Your task to perform on an android device: turn off picture-in-picture Image 0: 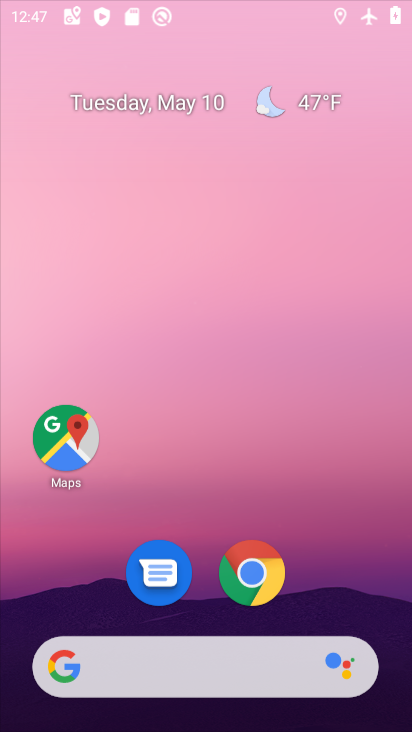
Step 0: click (310, 226)
Your task to perform on an android device: turn off picture-in-picture Image 1: 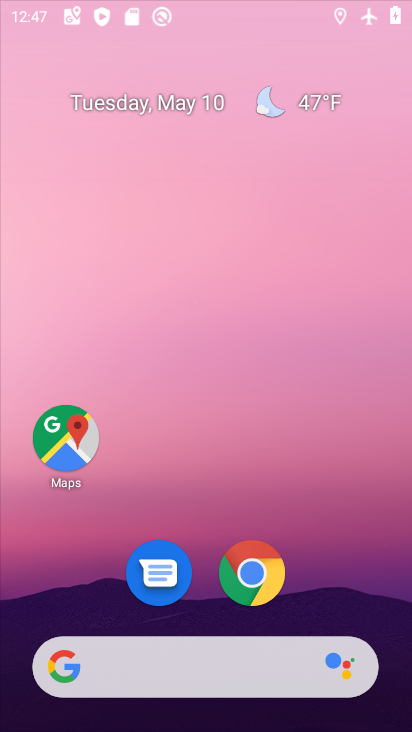
Step 1: drag from (213, 590) to (262, 265)
Your task to perform on an android device: turn off picture-in-picture Image 2: 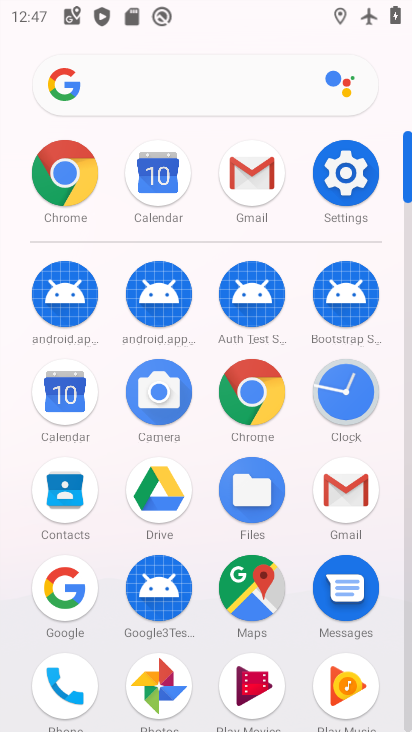
Step 2: click (365, 163)
Your task to perform on an android device: turn off picture-in-picture Image 3: 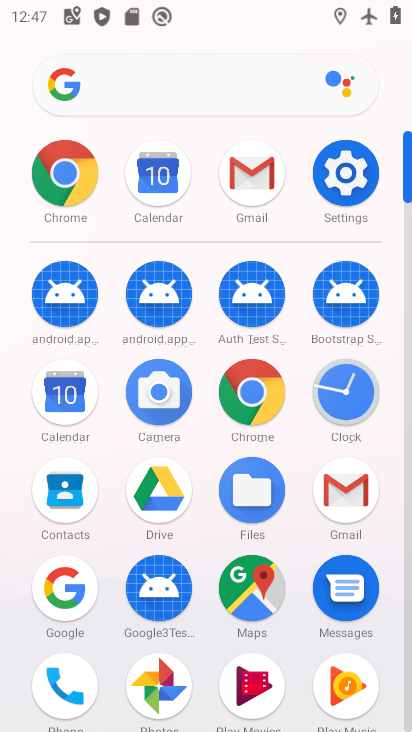
Step 3: click (365, 163)
Your task to perform on an android device: turn off picture-in-picture Image 4: 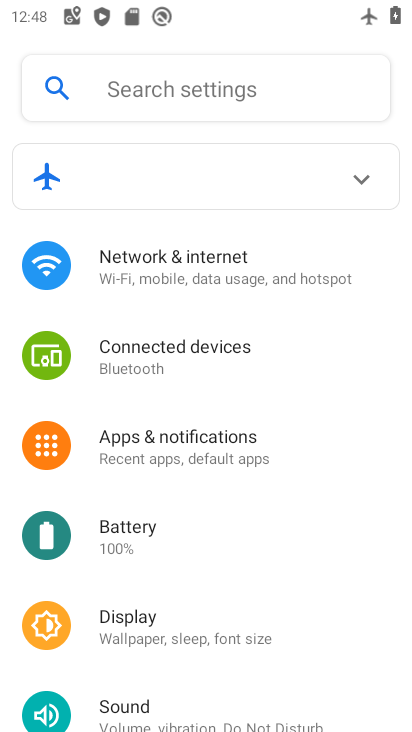
Step 4: drag from (199, 613) to (256, 250)
Your task to perform on an android device: turn off picture-in-picture Image 5: 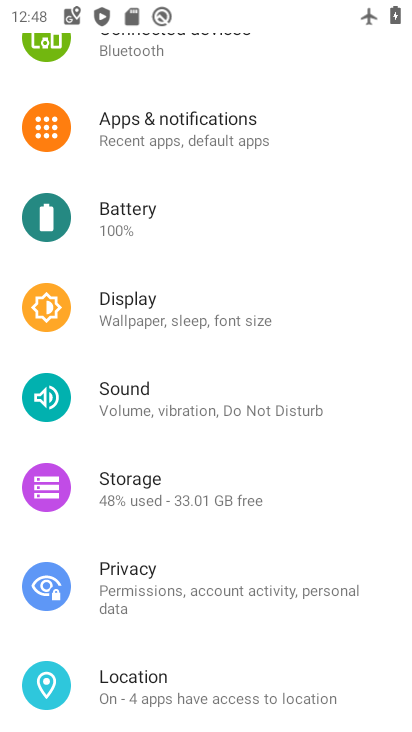
Step 5: drag from (193, 560) to (257, 261)
Your task to perform on an android device: turn off picture-in-picture Image 6: 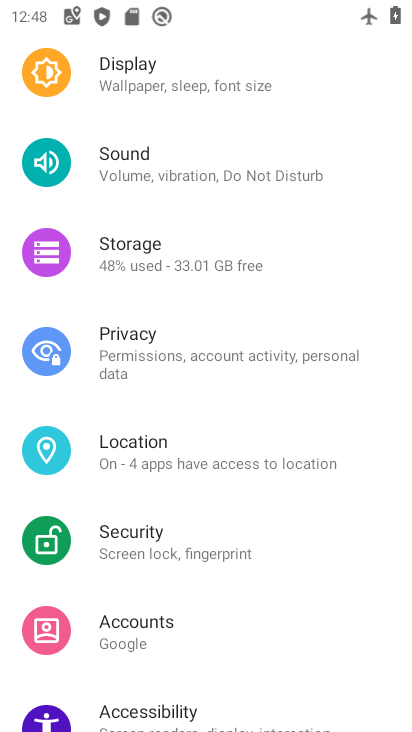
Step 6: drag from (270, 211) to (223, 627)
Your task to perform on an android device: turn off picture-in-picture Image 7: 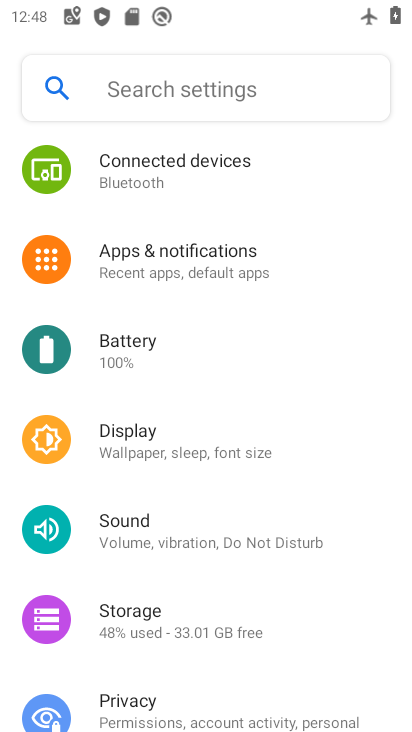
Step 7: click (204, 263)
Your task to perform on an android device: turn off picture-in-picture Image 8: 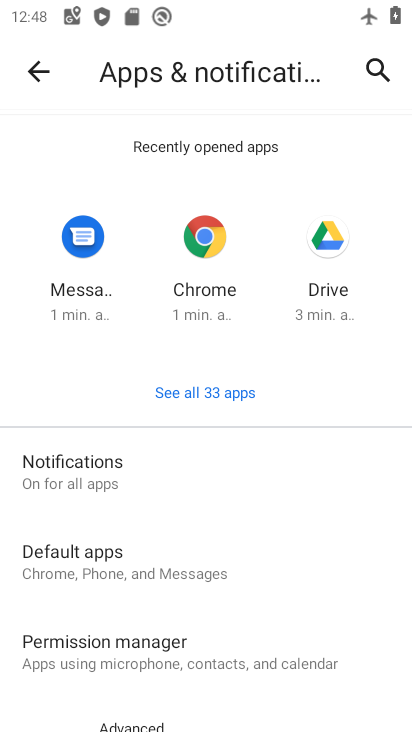
Step 8: click (117, 451)
Your task to perform on an android device: turn off picture-in-picture Image 9: 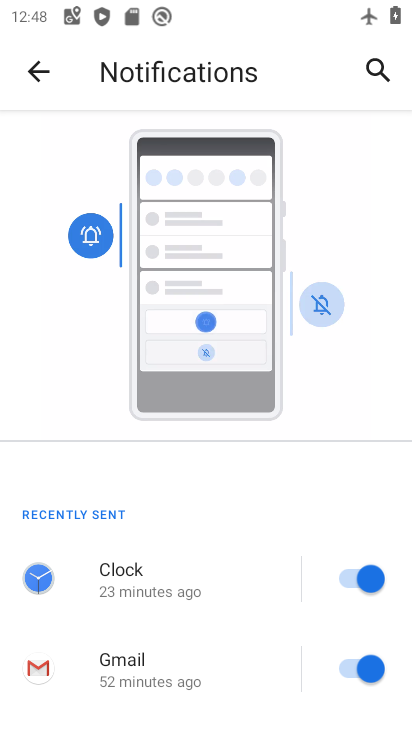
Step 9: drag from (186, 618) to (331, 193)
Your task to perform on an android device: turn off picture-in-picture Image 10: 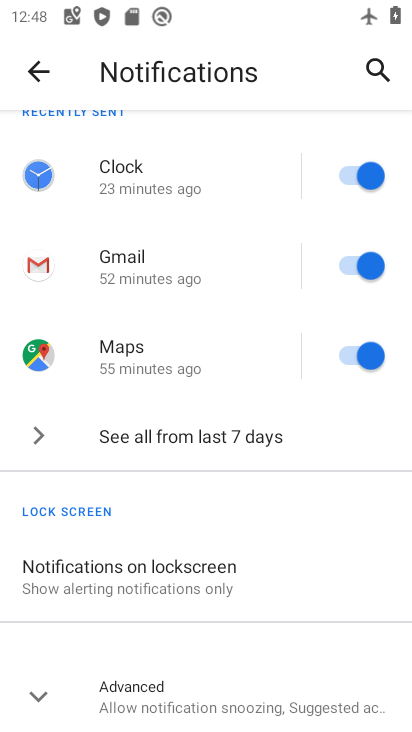
Step 10: click (38, 72)
Your task to perform on an android device: turn off picture-in-picture Image 11: 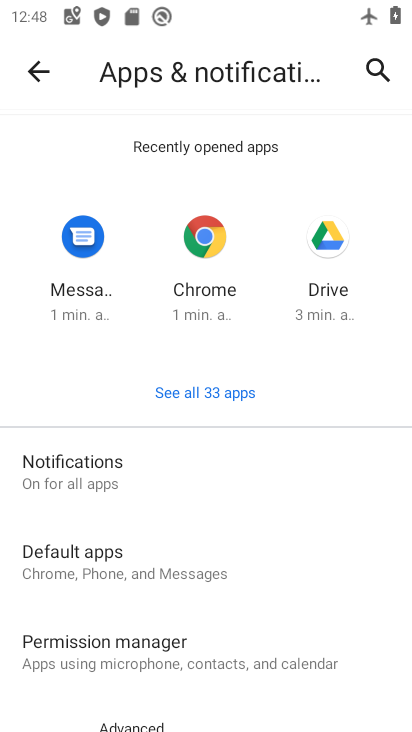
Step 11: drag from (167, 636) to (245, 247)
Your task to perform on an android device: turn off picture-in-picture Image 12: 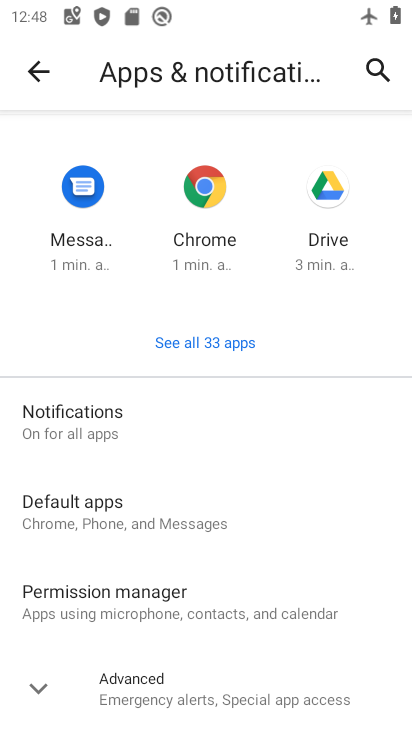
Step 12: click (210, 695)
Your task to perform on an android device: turn off picture-in-picture Image 13: 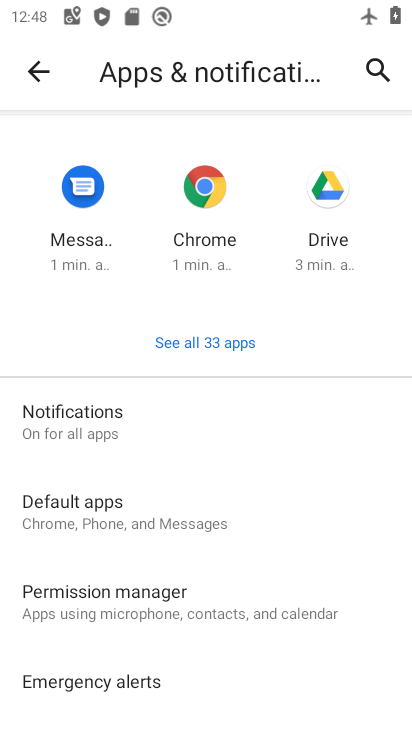
Step 13: drag from (200, 663) to (260, 184)
Your task to perform on an android device: turn off picture-in-picture Image 14: 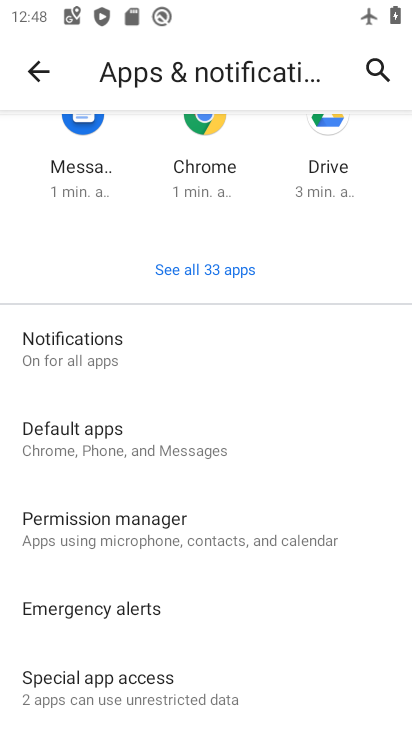
Step 14: click (146, 689)
Your task to perform on an android device: turn off picture-in-picture Image 15: 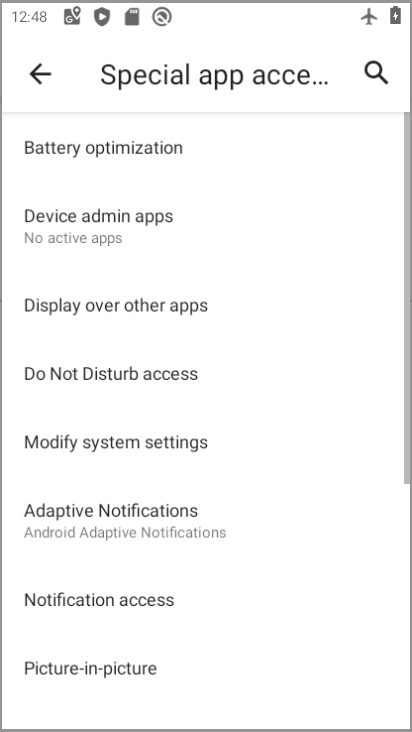
Step 15: drag from (147, 688) to (270, 227)
Your task to perform on an android device: turn off picture-in-picture Image 16: 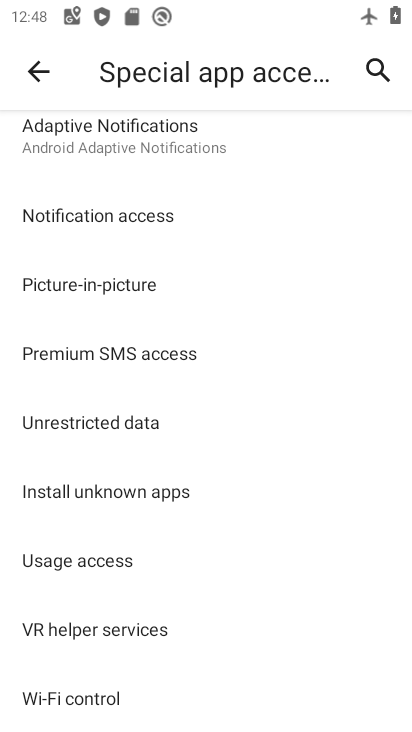
Step 16: drag from (208, 694) to (233, 258)
Your task to perform on an android device: turn off picture-in-picture Image 17: 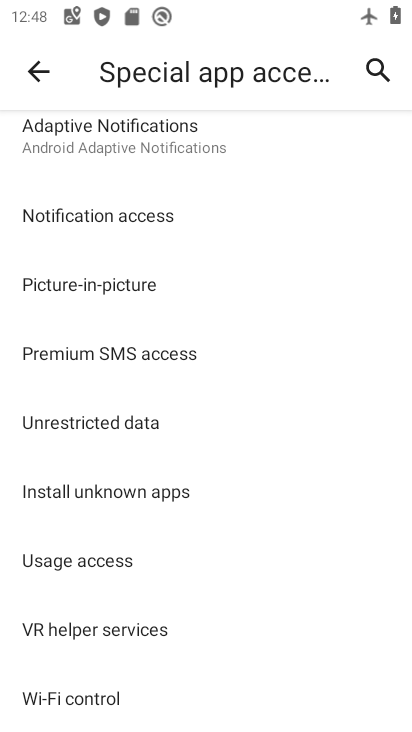
Step 17: click (163, 294)
Your task to perform on an android device: turn off picture-in-picture Image 18: 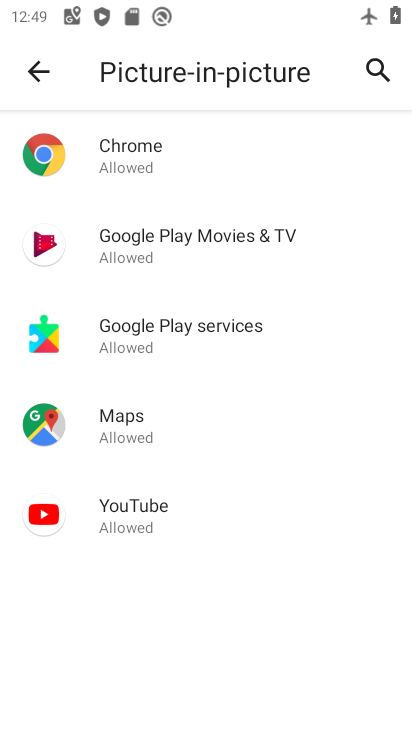
Step 18: click (177, 180)
Your task to perform on an android device: turn off picture-in-picture Image 19: 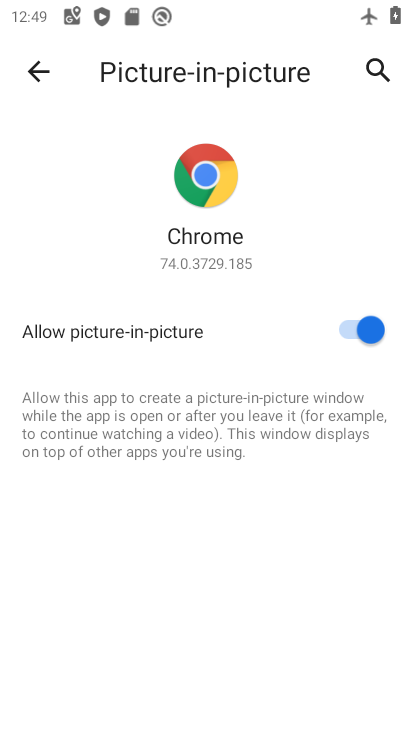
Step 19: click (375, 323)
Your task to perform on an android device: turn off picture-in-picture Image 20: 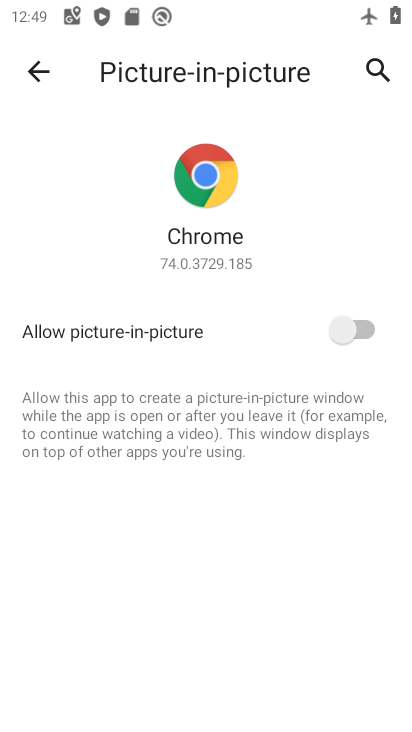
Step 20: task complete